Your task to perform on an android device: Go to Reddit.com Image 0: 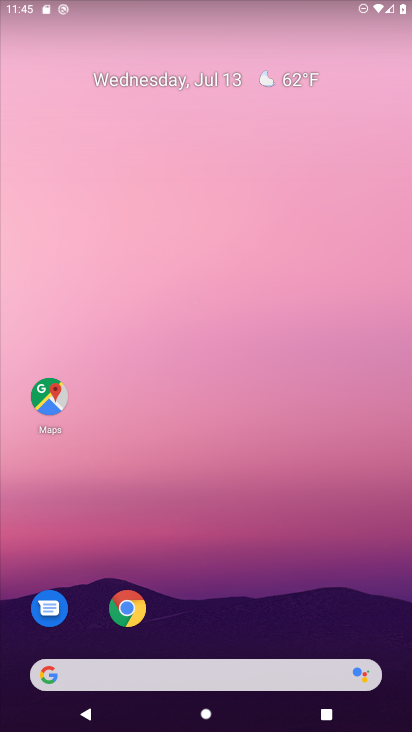
Step 0: click (129, 606)
Your task to perform on an android device: Go to Reddit.com Image 1: 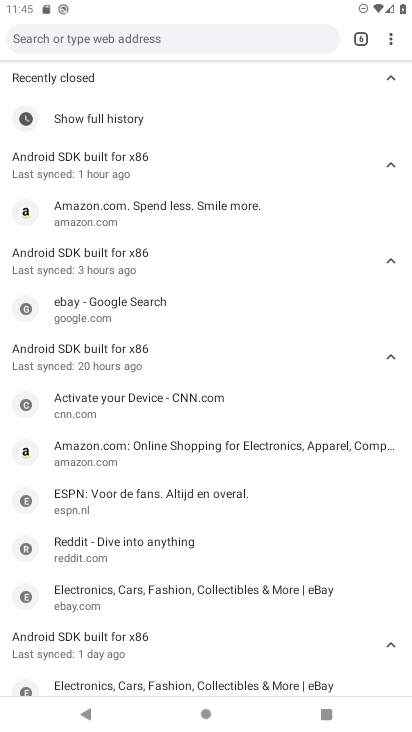
Step 1: click (391, 44)
Your task to perform on an android device: Go to Reddit.com Image 2: 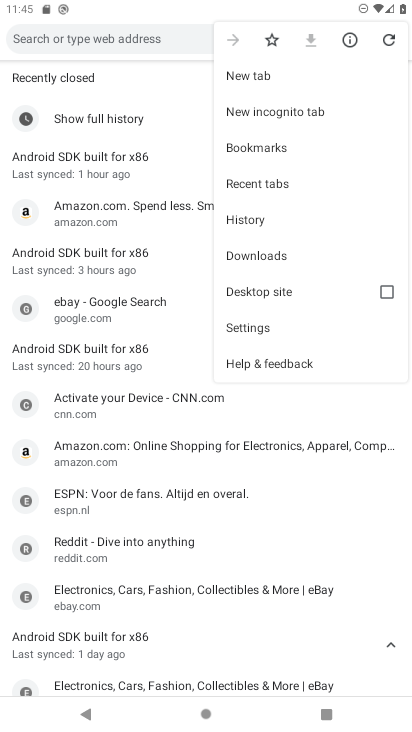
Step 2: click (259, 74)
Your task to perform on an android device: Go to Reddit.com Image 3: 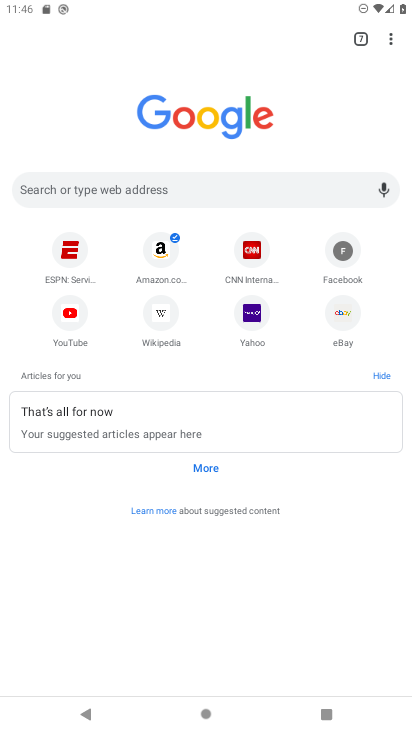
Step 3: click (200, 187)
Your task to perform on an android device: Go to Reddit.com Image 4: 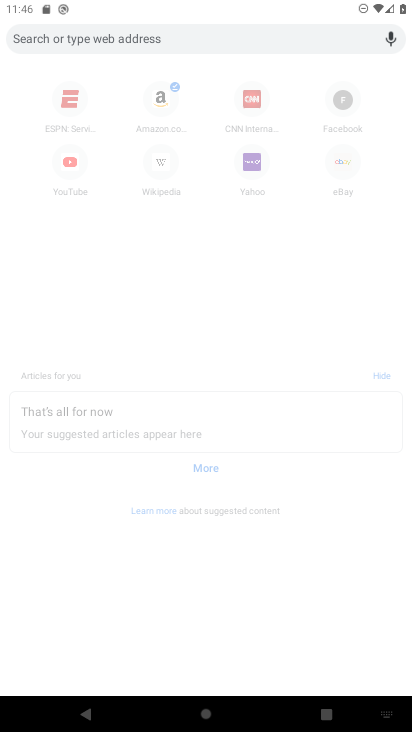
Step 4: type "Reddit.ccm"
Your task to perform on an android device: Go to Reddit.com Image 5: 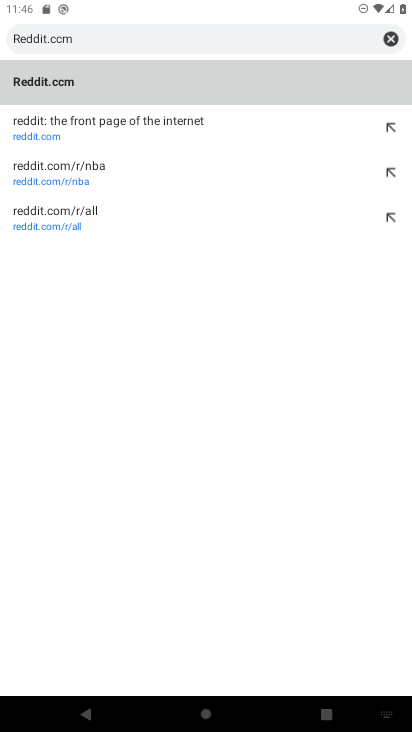
Step 5: click (25, 83)
Your task to perform on an android device: Go to Reddit.com Image 6: 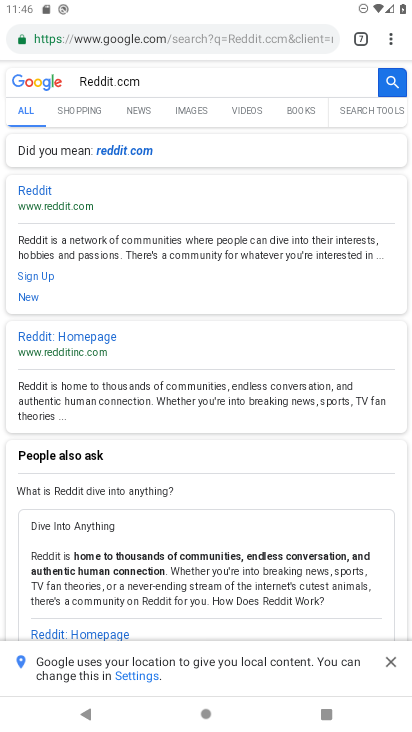
Step 6: click (29, 193)
Your task to perform on an android device: Go to Reddit.com Image 7: 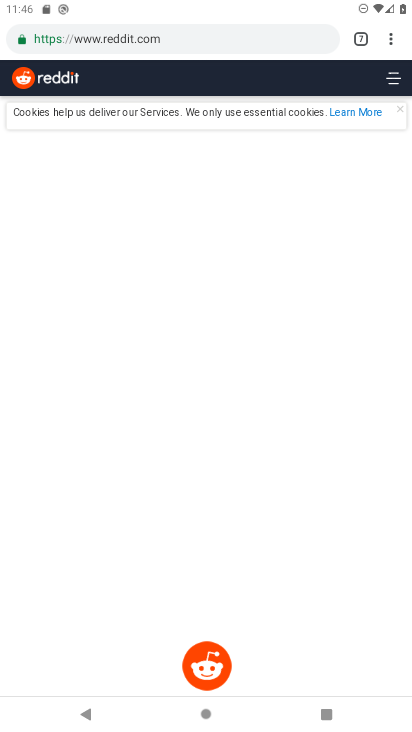
Step 7: task complete